Your task to perform on an android device: Open CNN.com Image 0: 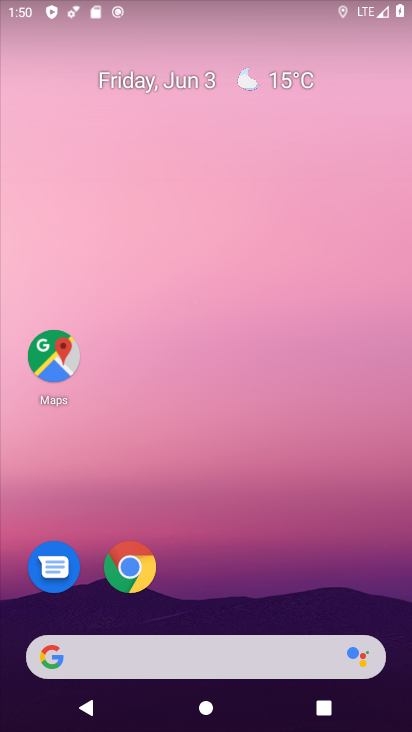
Step 0: drag from (156, 637) to (240, 277)
Your task to perform on an android device: Open CNN.com Image 1: 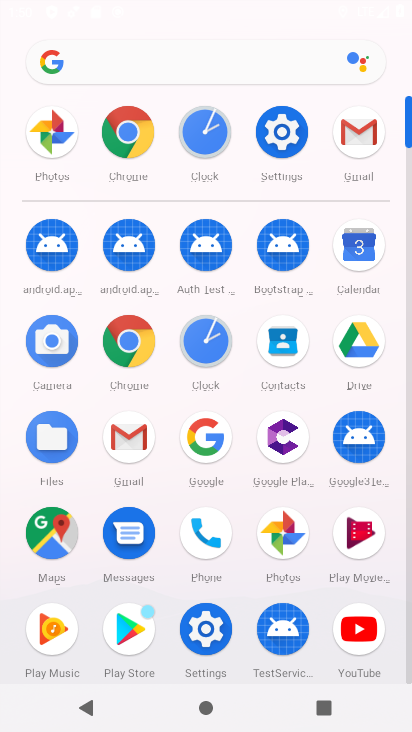
Step 1: click (193, 444)
Your task to perform on an android device: Open CNN.com Image 2: 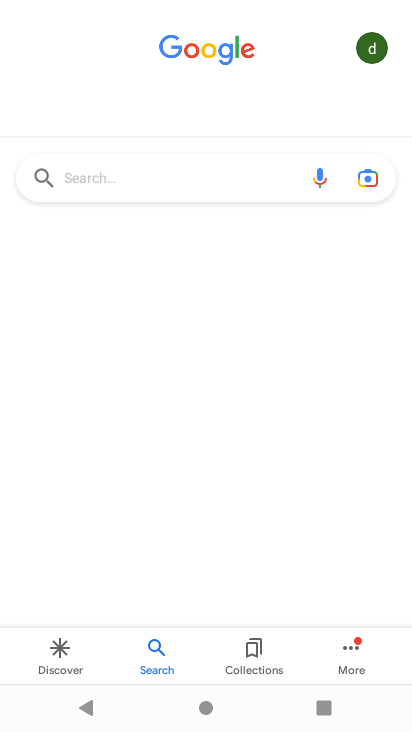
Step 2: click (197, 179)
Your task to perform on an android device: Open CNN.com Image 3: 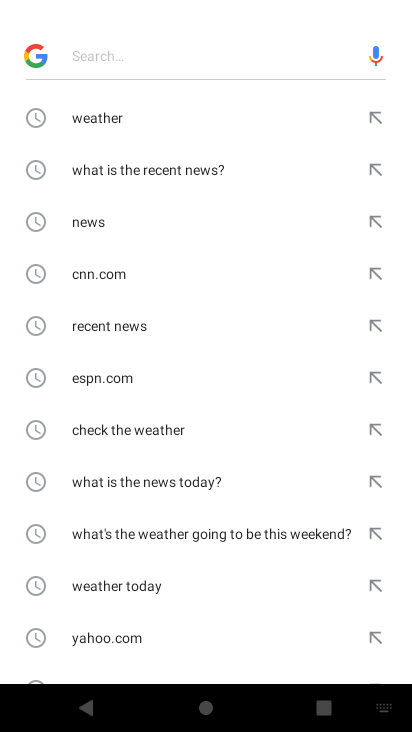
Step 3: click (115, 275)
Your task to perform on an android device: Open CNN.com Image 4: 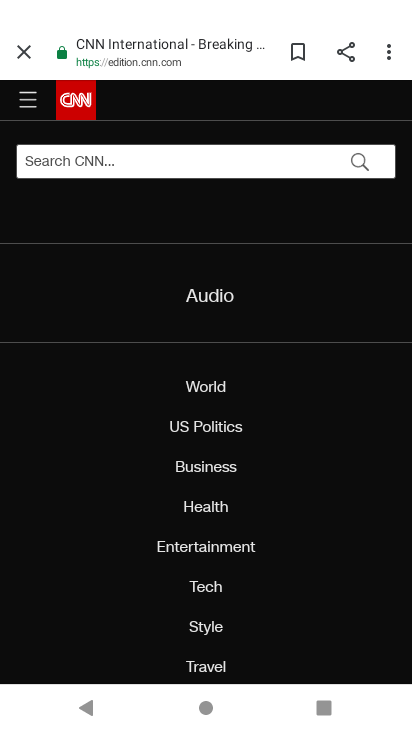
Step 4: task complete